Your task to perform on an android device: Open Reddit.com Image 0: 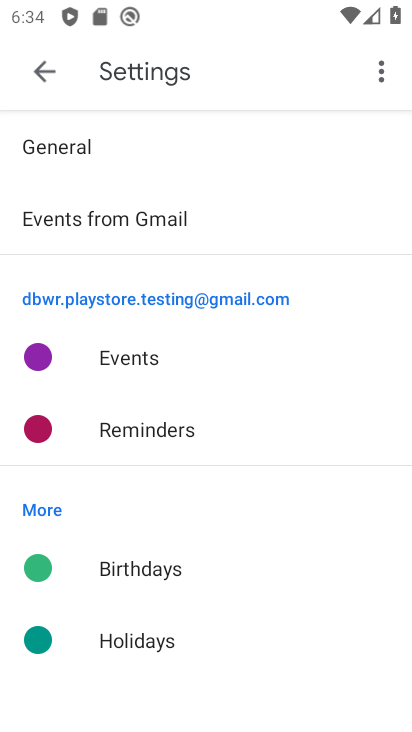
Step 0: press home button
Your task to perform on an android device: Open Reddit.com Image 1: 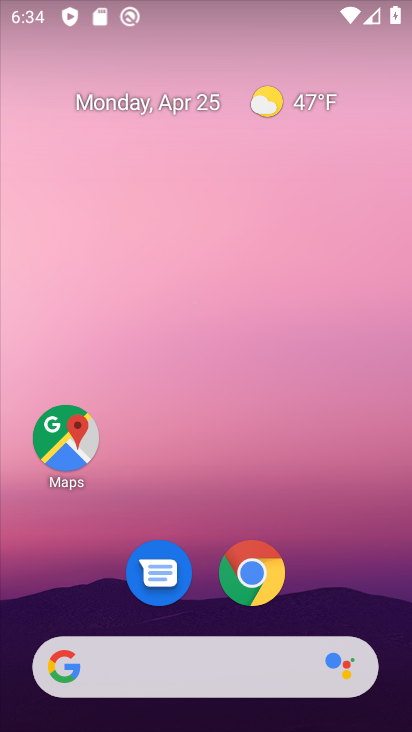
Step 1: click (223, 655)
Your task to perform on an android device: Open Reddit.com Image 2: 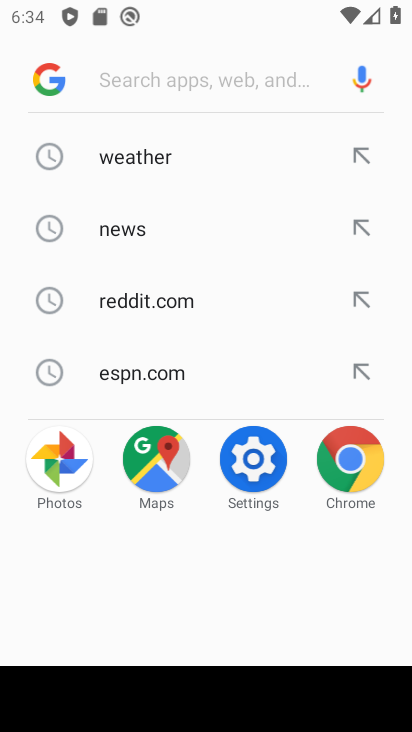
Step 2: click (144, 294)
Your task to perform on an android device: Open Reddit.com Image 3: 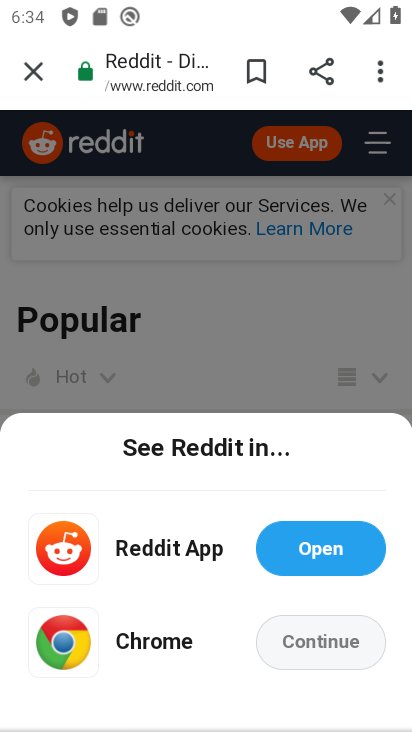
Step 3: task complete